Your task to perform on an android device: toggle wifi Image 0: 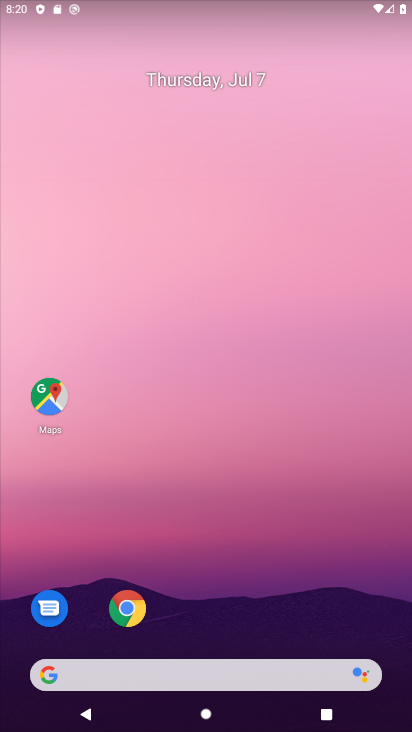
Step 0: drag from (379, 616) to (346, 189)
Your task to perform on an android device: toggle wifi Image 1: 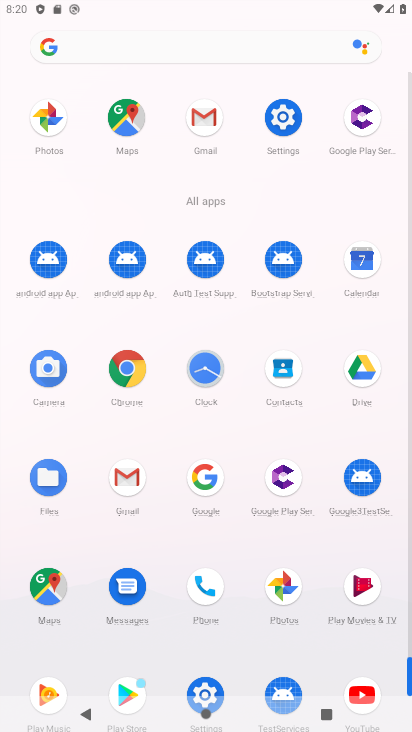
Step 1: click (410, 639)
Your task to perform on an android device: toggle wifi Image 2: 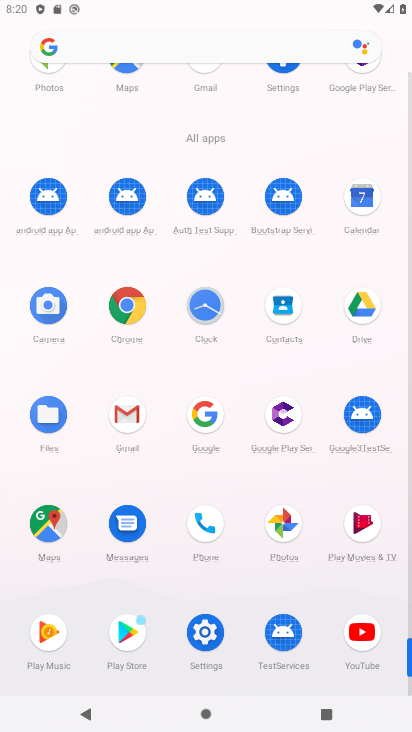
Step 2: click (201, 628)
Your task to perform on an android device: toggle wifi Image 3: 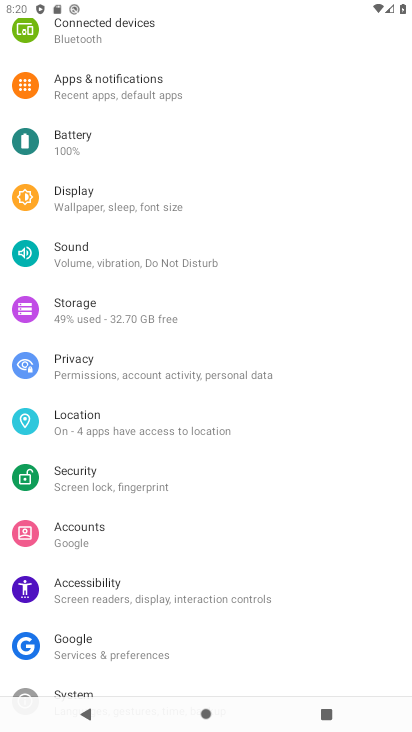
Step 3: drag from (322, 106) to (317, 387)
Your task to perform on an android device: toggle wifi Image 4: 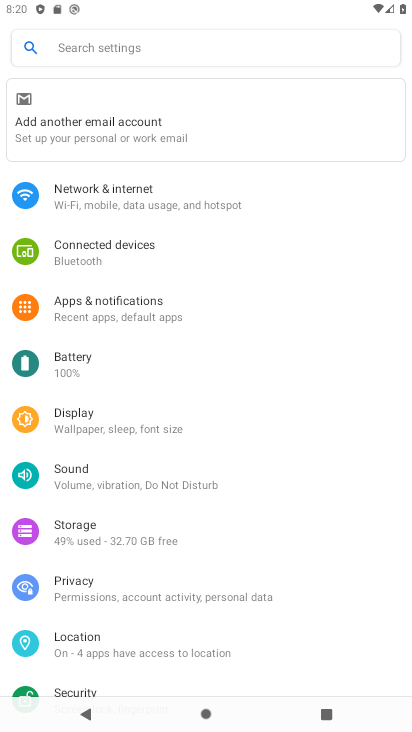
Step 4: click (81, 190)
Your task to perform on an android device: toggle wifi Image 5: 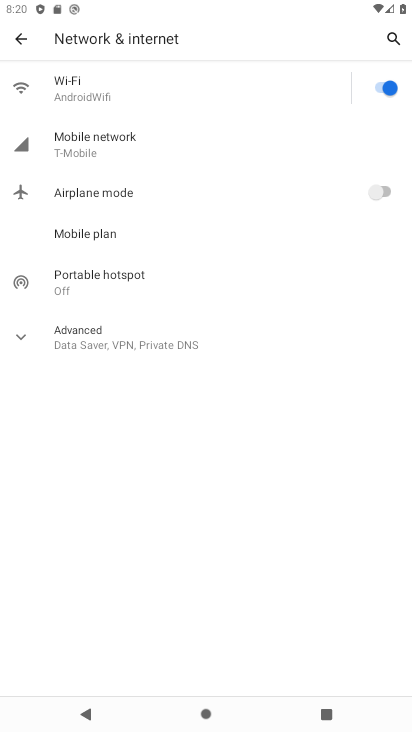
Step 5: click (374, 89)
Your task to perform on an android device: toggle wifi Image 6: 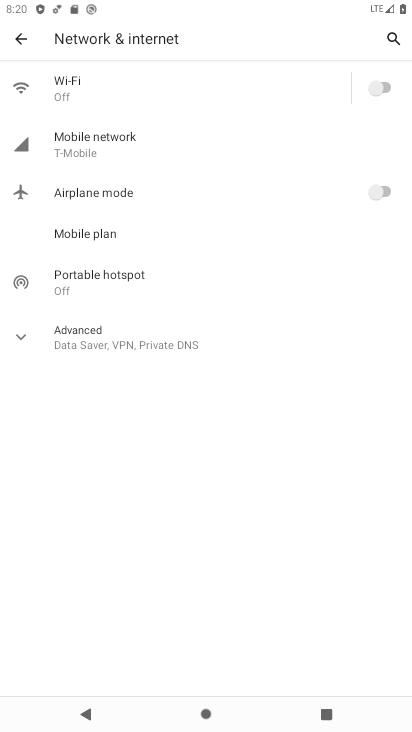
Step 6: task complete